Your task to perform on an android device: delete the emails in spam in the gmail app Image 0: 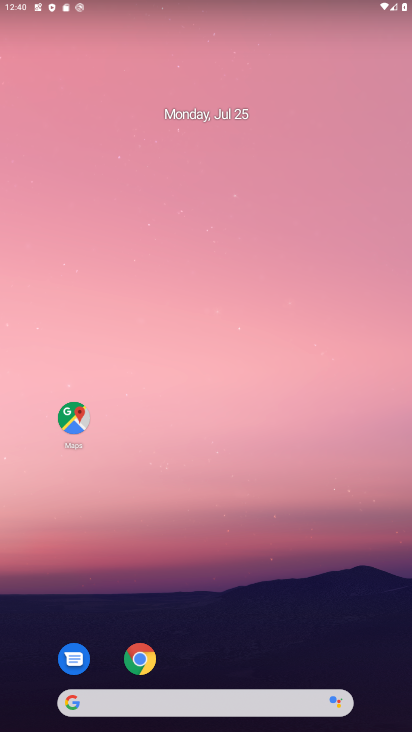
Step 0: drag from (252, 288) to (264, 5)
Your task to perform on an android device: delete the emails in spam in the gmail app Image 1: 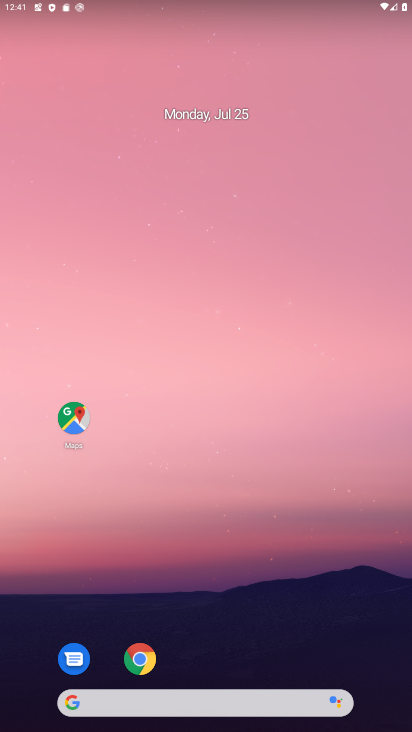
Step 1: drag from (228, 610) to (244, 20)
Your task to perform on an android device: delete the emails in spam in the gmail app Image 2: 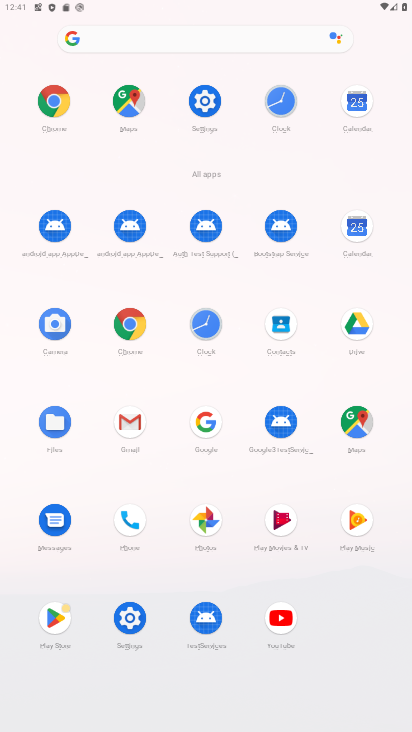
Step 2: click (131, 421)
Your task to perform on an android device: delete the emails in spam in the gmail app Image 3: 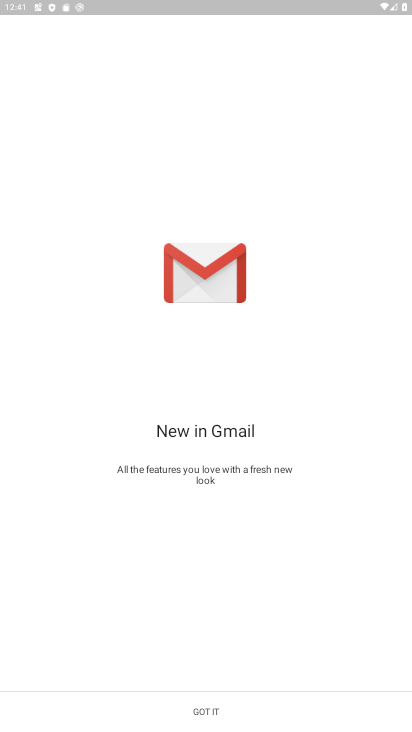
Step 3: click (209, 717)
Your task to perform on an android device: delete the emails in spam in the gmail app Image 4: 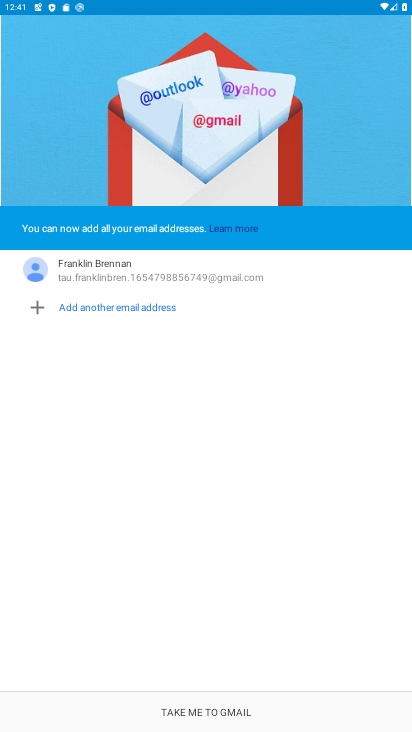
Step 4: click (208, 718)
Your task to perform on an android device: delete the emails in spam in the gmail app Image 5: 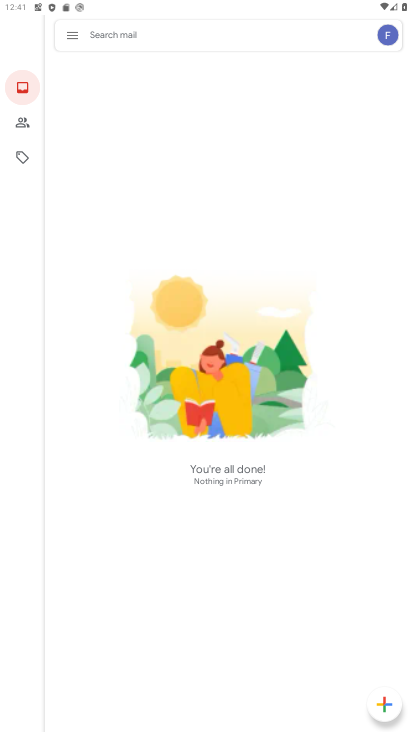
Step 5: click (80, 38)
Your task to perform on an android device: delete the emails in spam in the gmail app Image 6: 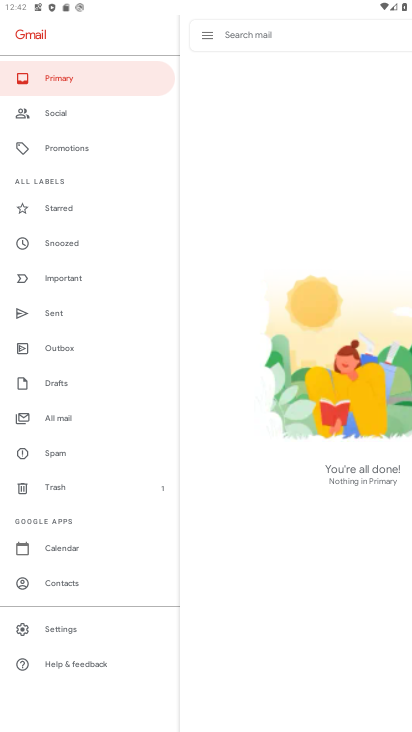
Step 6: click (80, 459)
Your task to perform on an android device: delete the emails in spam in the gmail app Image 7: 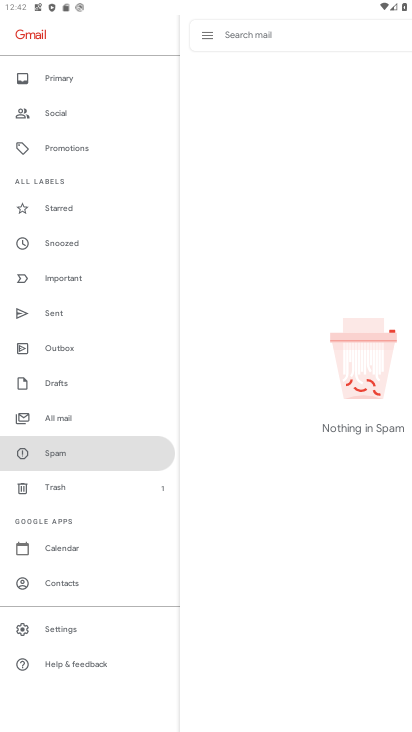
Step 7: task complete